Your task to perform on an android device: set the timer Image 0: 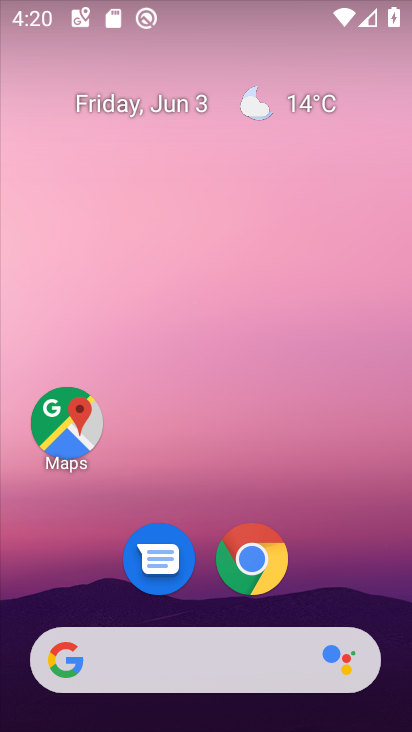
Step 0: drag from (245, 686) to (69, 7)
Your task to perform on an android device: set the timer Image 1: 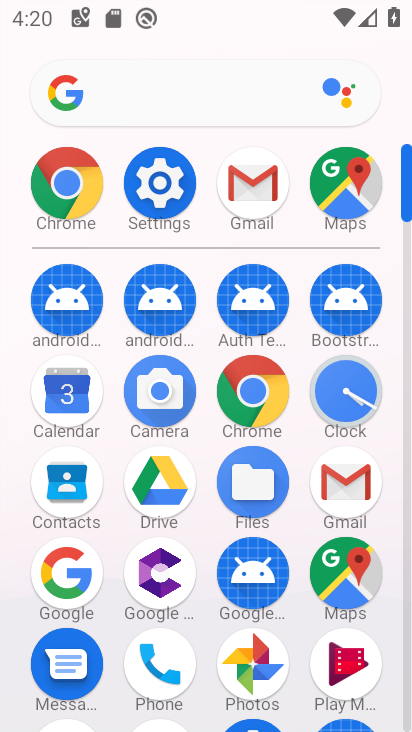
Step 1: drag from (96, 50) to (165, 38)
Your task to perform on an android device: set the timer Image 2: 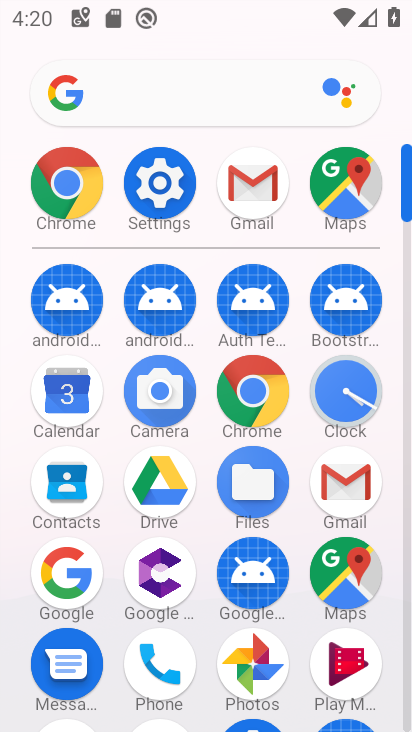
Step 2: click (344, 413)
Your task to perform on an android device: set the timer Image 3: 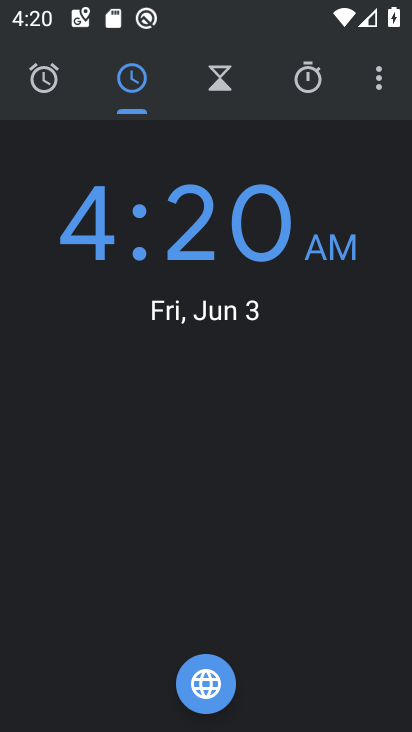
Step 3: click (305, 85)
Your task to perform on an android device: set the timer Image 4: 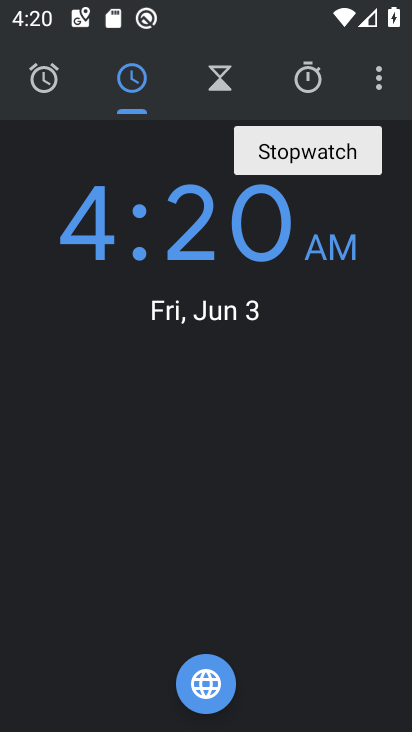
Step 4: click (219, 86)
Your task to perform on an android device: set the timer Image 5: 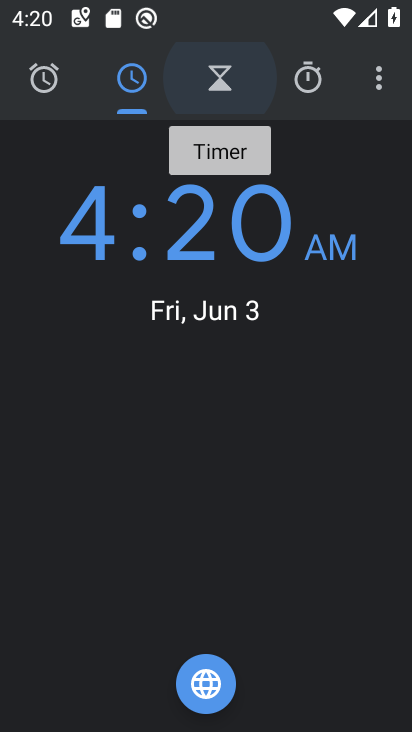
Step 5: click (220, 85)
Your task to perform on an android device: set the timer Image 6: 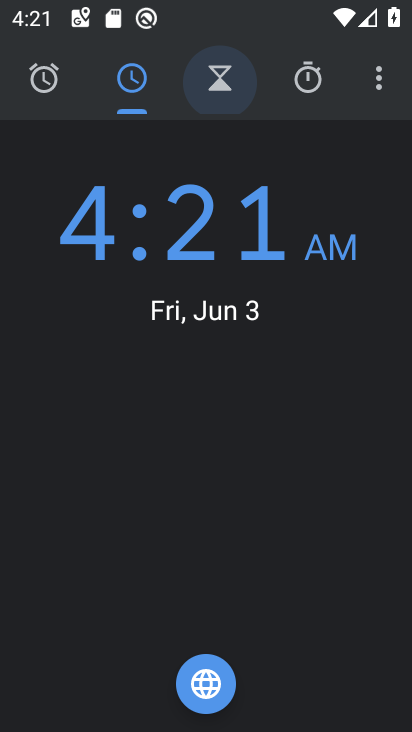
Step 6: click (218, 85)
Your task to perform on an android device: set the timer Image 7: 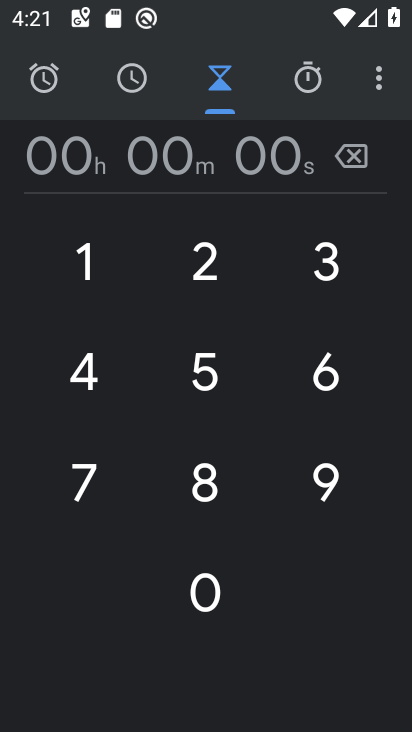
Step 7: click (202, 447)
Your task to perform on an android device: set the timer Image 8: 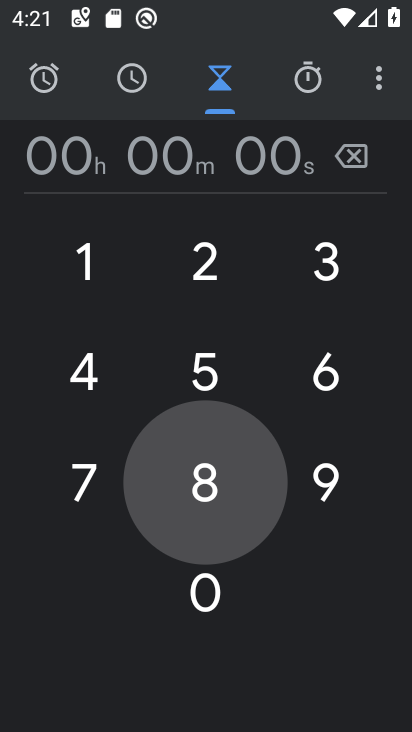
Step 8: click (196, 476)
Your task to perform on an android device: set the timer Image 9: 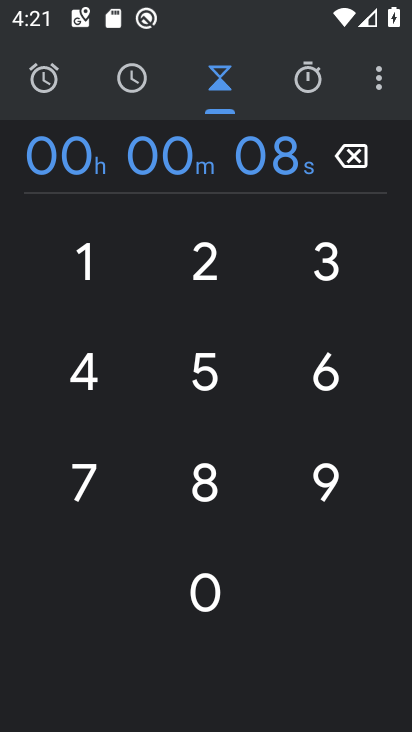
Step 9: click (196, 476)
Your task to perform on an android device: set the timer Image 10: 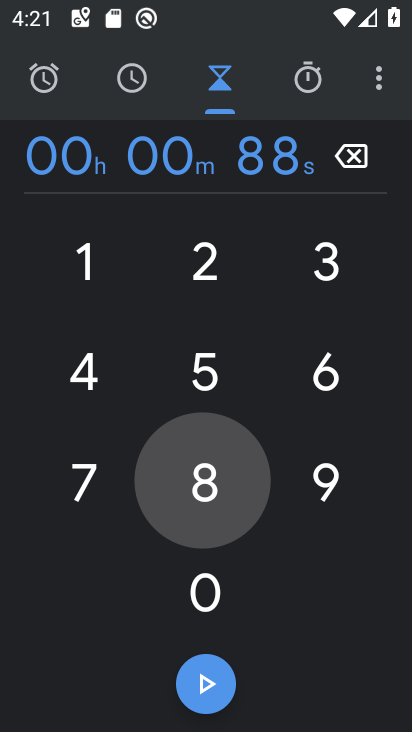
Step 10: click (196, 477)
Your task to perform on an android device: set the timer Image 11: 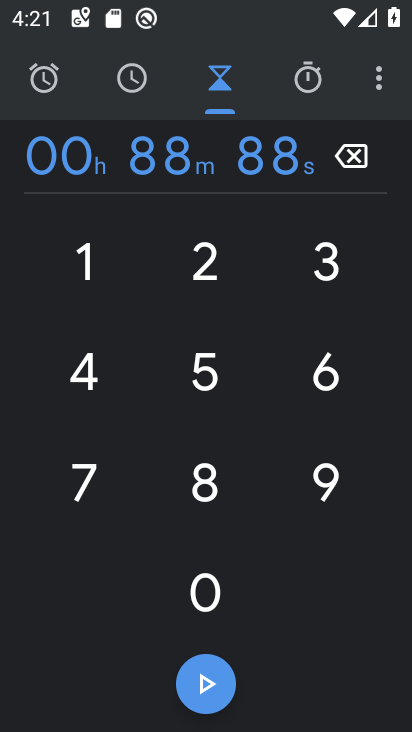
Step 11: click (205, 691)
Your task to perform on an android device: set the timer Image 12: 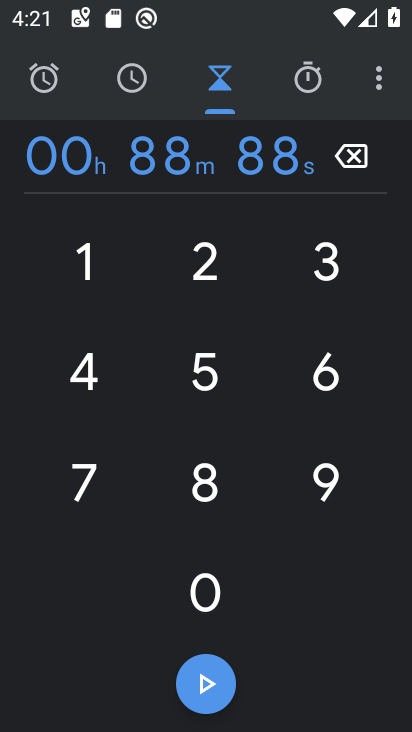
Step 12: click (204, 691)
Your task to perform on an android device: set the timer Image 13: 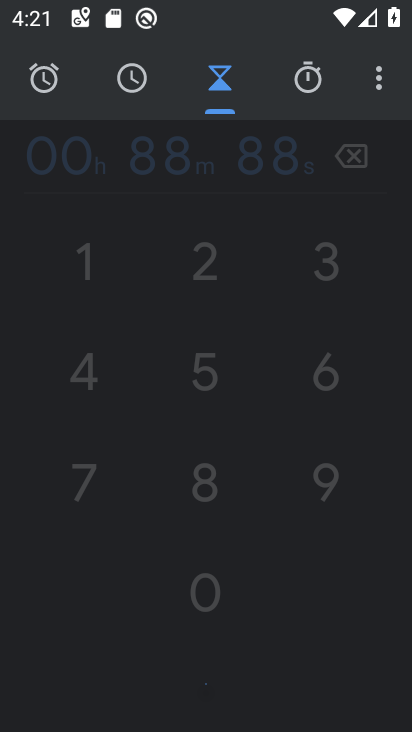
Step 13: click (204, 691)
Your task to perform on an android device: set the timer Image 14: 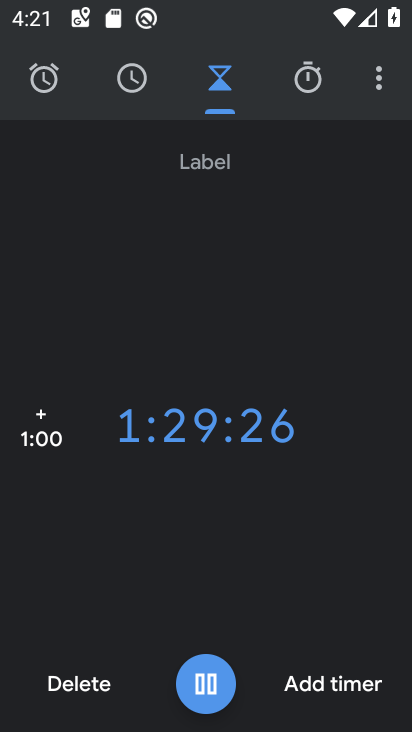
Step 14: click (207, 677)
Your task to perform on an android device: set the timer Image 15: 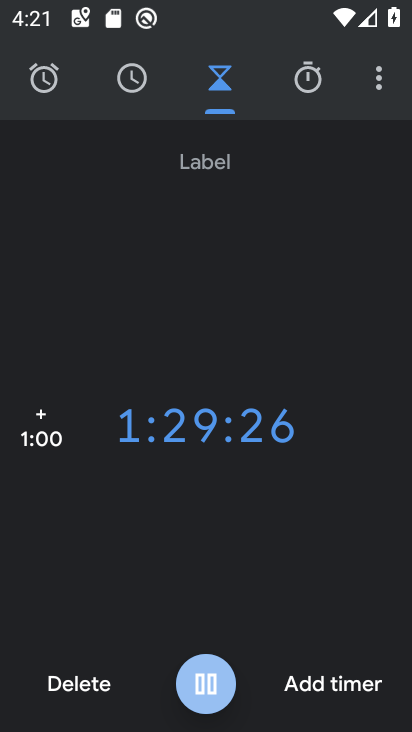
Step 15: click (207, 677)
Your task to perform on an android device: set the timer Image 16: 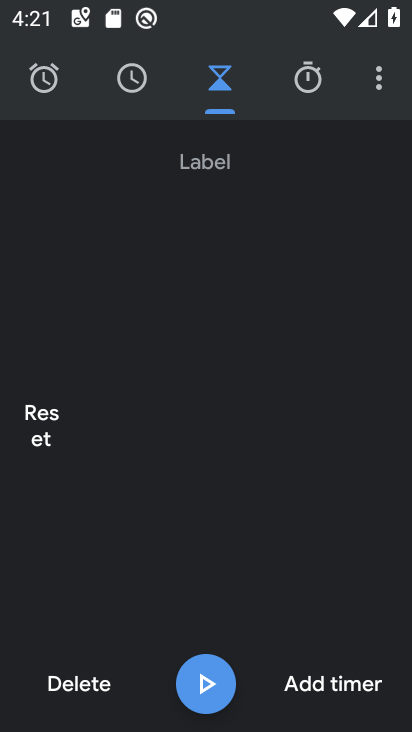
Step 16: click (208, 677)
Your task to perform on an android device: set the timer Image 17: 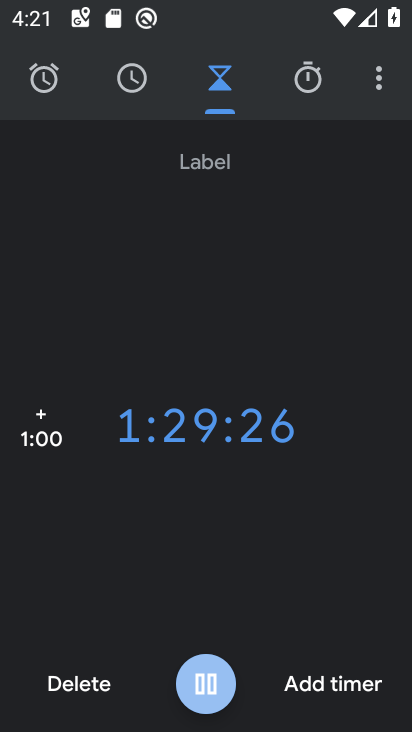
Step 17: click (209, 677)
Your task to perform on an android device: set the timer Image 18: 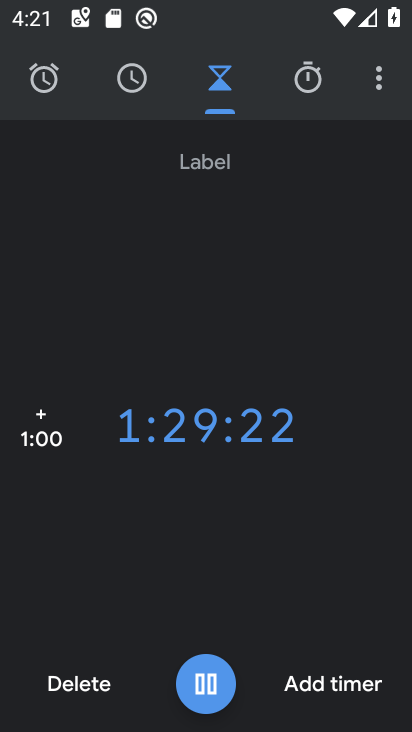
Step 18: click (206, 683)
Your task to perform on an android device: set the timer Image 19: 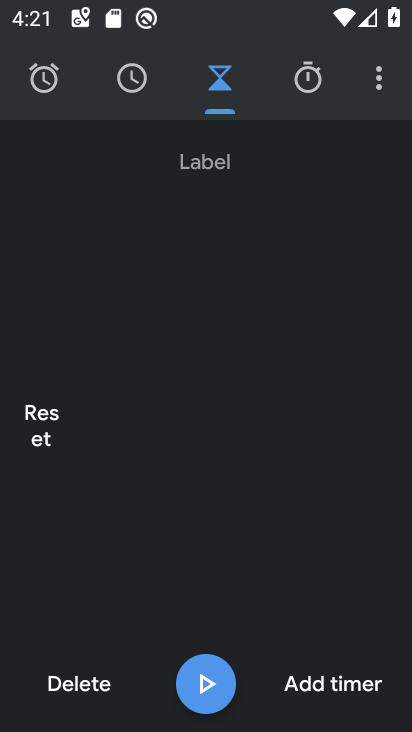
Step 19: task complete